Your task to perform on an android device: Check the news Image 0: 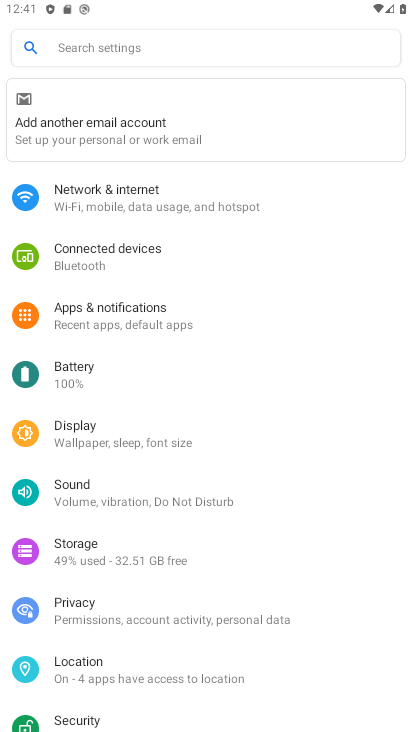
Step 0: press home button
Your task to perform on an android device: Check the news Image 1: 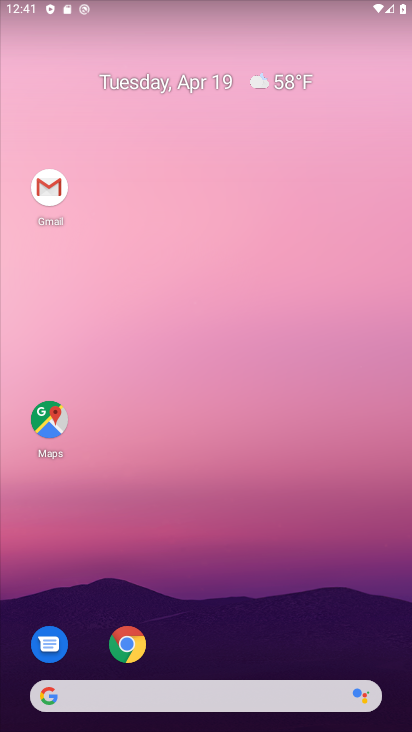
Step 1: drag from (247, 558) to (260, 204)
Your task to perform on an android device: Check the news Image 2: 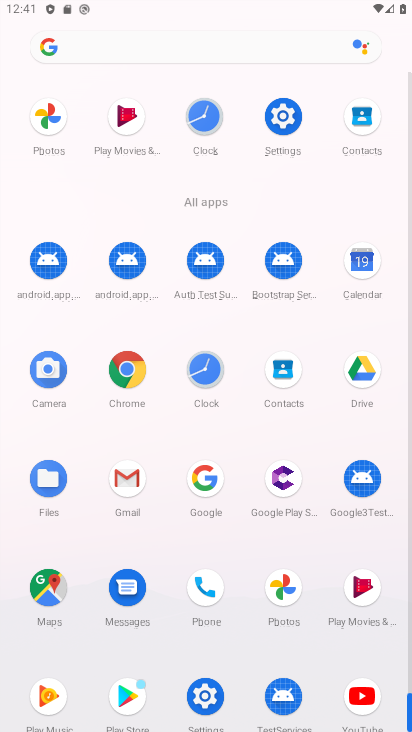
Step 2: click (206, 484)
Your task to perform on an android device: Check the news Image 3: 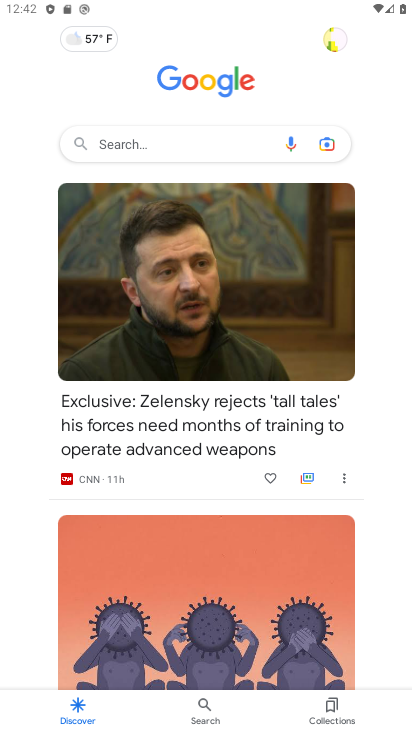
Step 3: click (167, 142)
Your task to perform on an android device: Check the news Image 4: 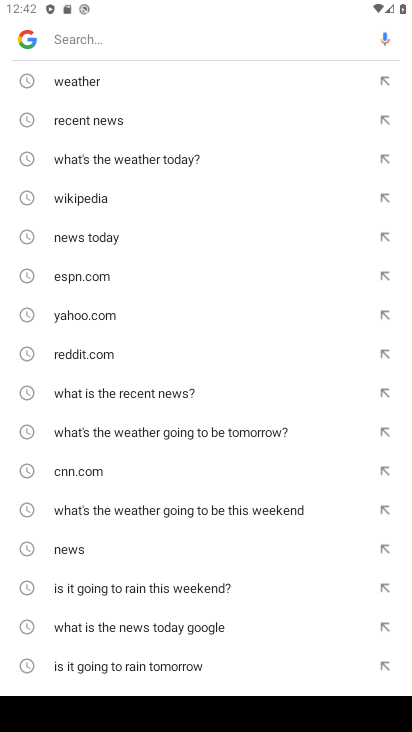
Step 4: click (66, 551)
Your task to perform on an android device: Check the news Image 5: 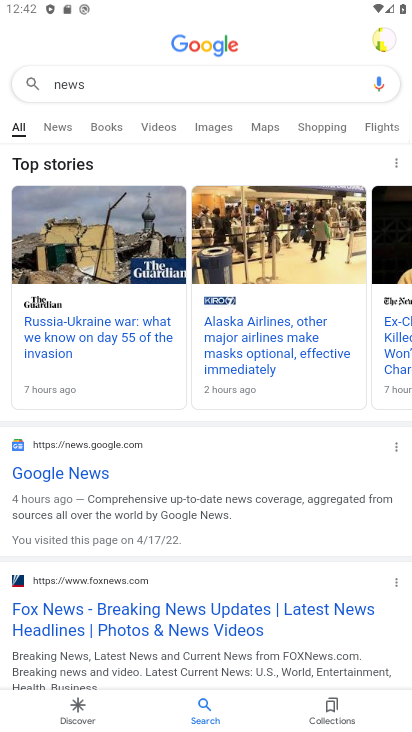
Step 5: task complete